Your task to perform on an android device: Open location settings Image 0: 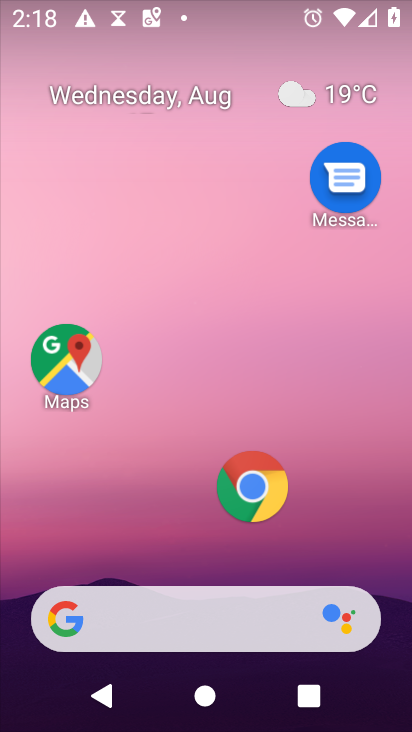
Step 0: drag from (150, 118) to (150, 72)
Your task to perform on an android device: Open location settings Image 1: 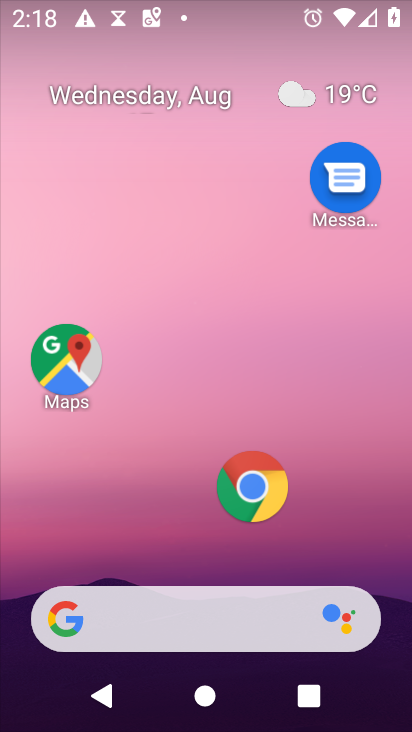
Step 1: drag from (156, 567) to (247, 3)
Your task to perform on an android device: Open location settings Image 2: 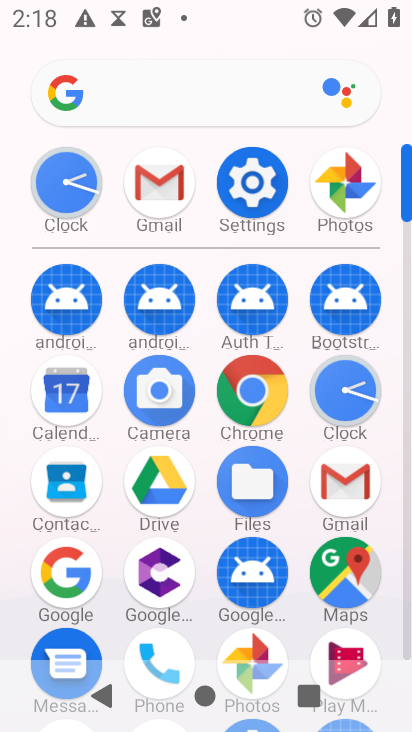
Step 2: click (249, 184)
Your task to perform on an android device: Open location settings Image 3: 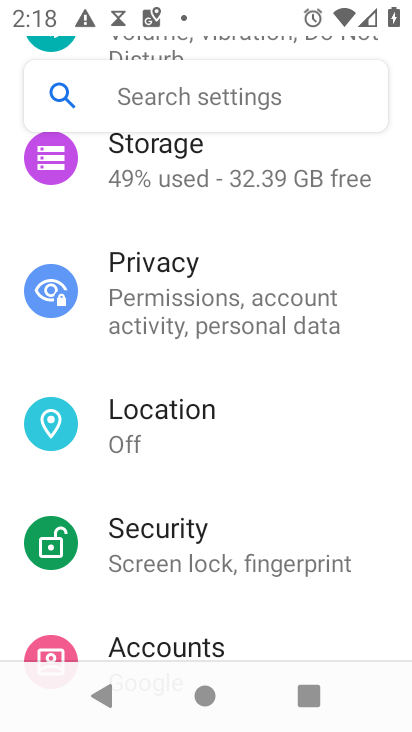
Step 3: click (176, 430)
Your task to perform on an android device: Open location settings Image 4: 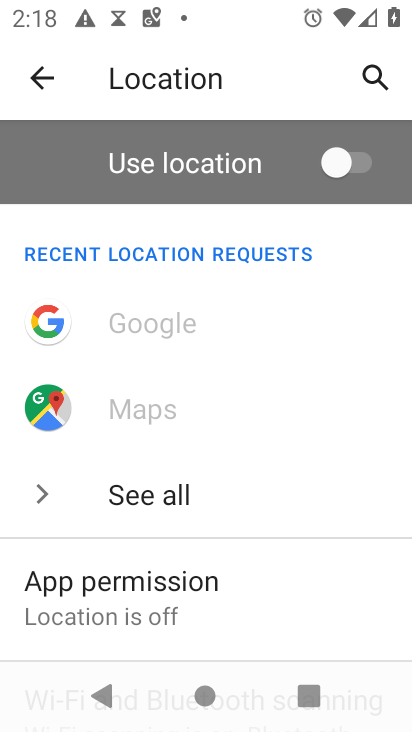
Step 4: task complete